Your task to perform on an android device: turn on wifi Image 0: 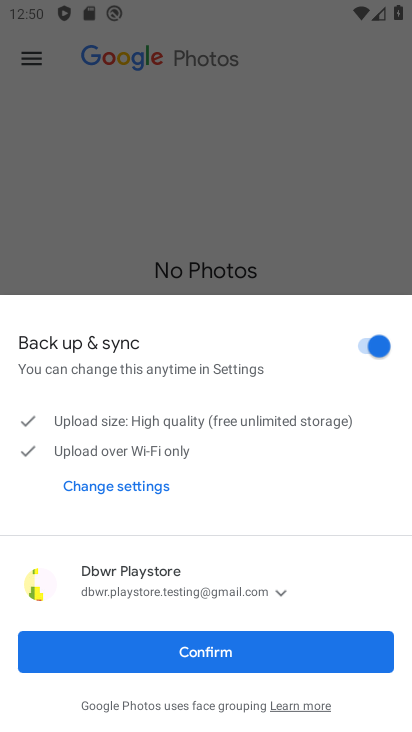
Step 0: press home button
Your task to perform on an android device: turn on wifi Image 1: 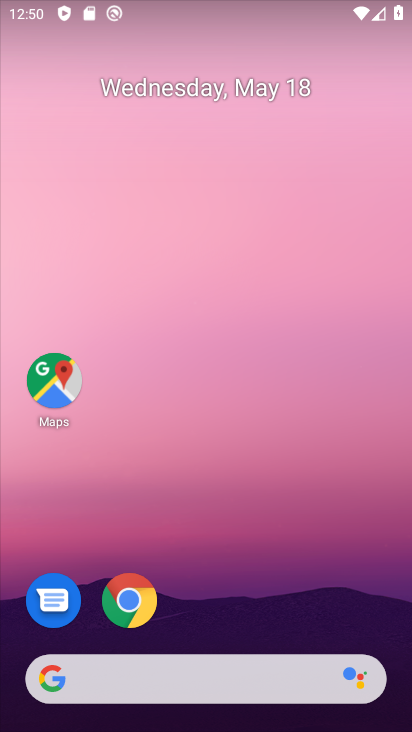
Step 1: drag from (222, 594) to (194, 159)
Your task to perform on an android device: turn on wifi Image 2: 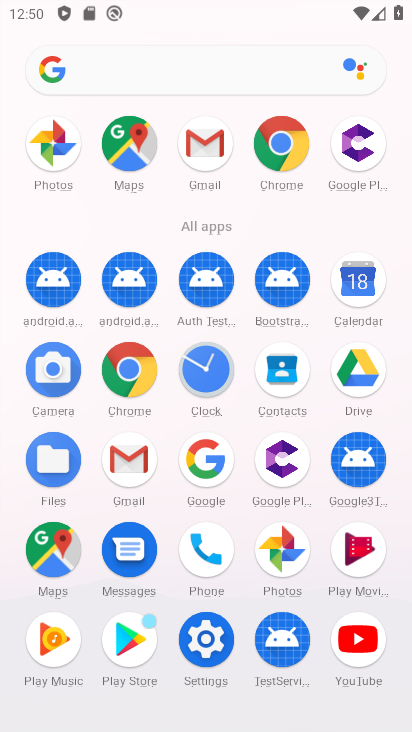
Step 2: click (208, 637)
Your task to perform on an android device: turn on wifi Image 3: 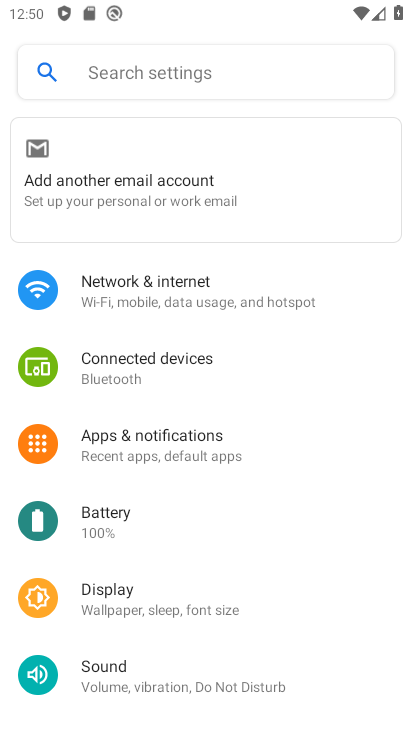
Step 3: click (141, 286)
Your task to perform on an android device: turn on wifi Image 4: 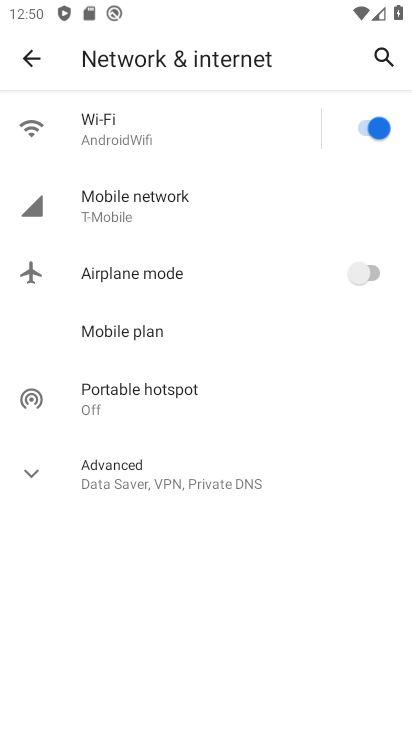
Step 4: task complete